Your task to perform on an android device: Go to Maps Image 0: 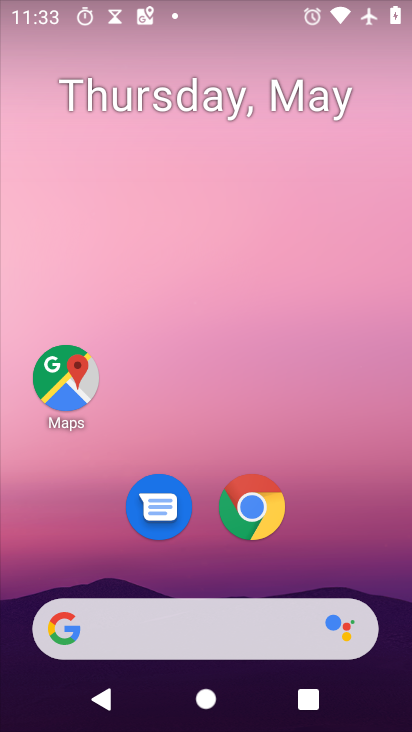
Step 0: click (59, 371)
Your task to perform on an android device: Go to Maps Image 1: 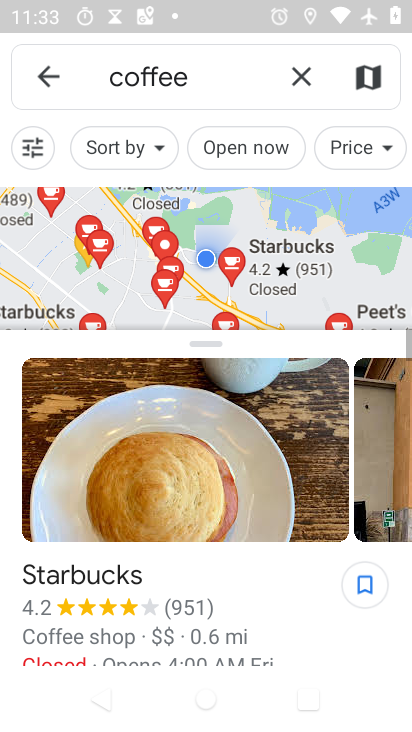
Step 1: click (59, 76)
Your task to perform on an android device: Go to Maps Image 2: 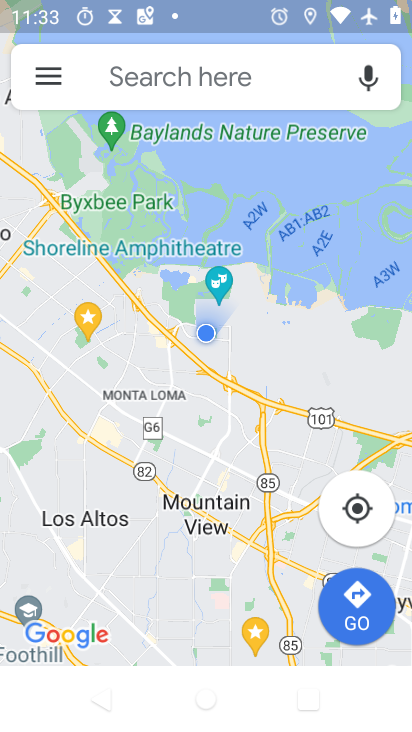
Step 2: task complete